Your task to perform on an android device: open the mobile data screen to see how much data has been used Image 0: 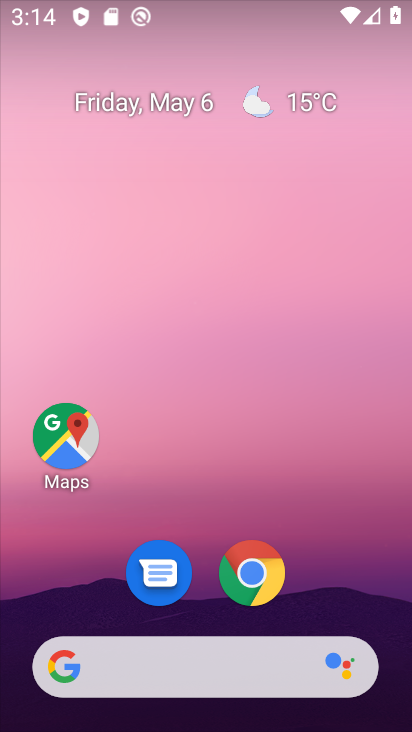
Step 0: drag from (215, 624) to (341, 38)
Your task to perform on an android device: open the mobile data screen to see how much data has been used Image 1: 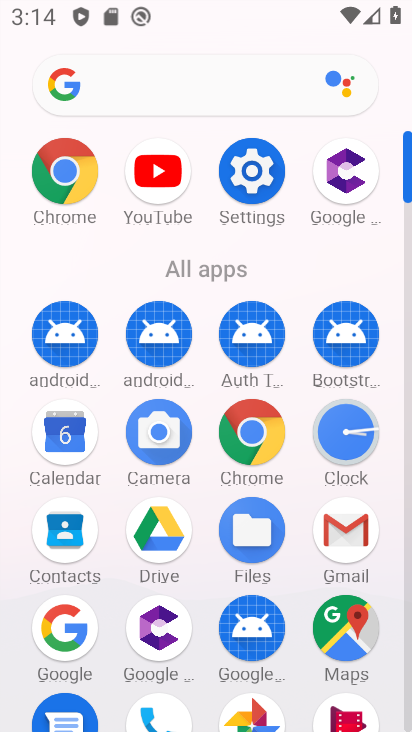
Step 1: drag from (189, 654) to (230, 188)
Your task to perform on an android device: open the mobile data screen to see how much data has been used Image 2: 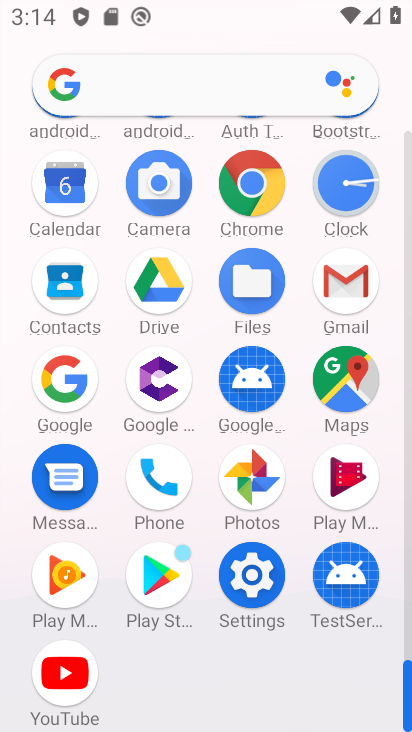
Step 2: click (261, 589)
Your task to perform on an android device: open the mobile data screen to see how much data has been used Image 3: 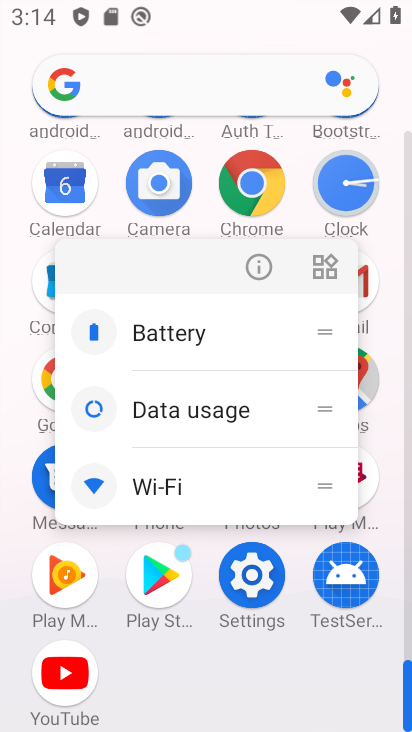
Step 3: click (259, 267)
Your task to perform on an android device: open the mobile data screen to see how much data has been used Image 4: 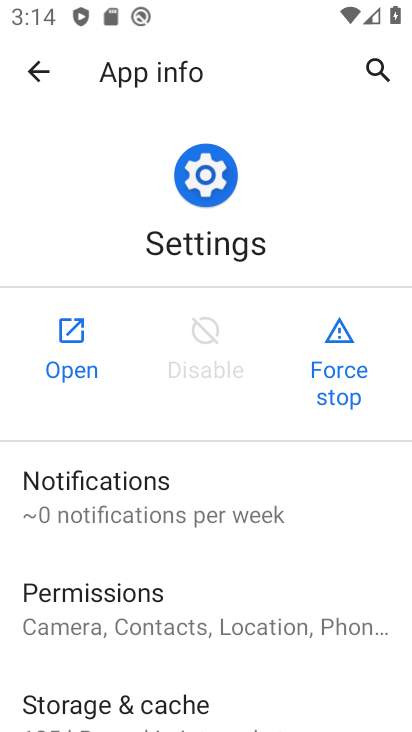
Step 4: click (75, 357)
Your task to perform on an android device: open the mobile data screen to see how much data has been used Image 5: 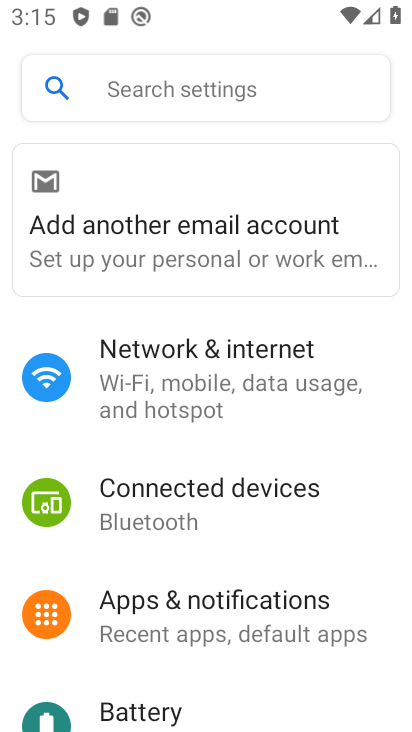
Step 5: click (193, 419)
Your task to perform on an android device: open the mobile data screen to see how much data has been used Image 6: 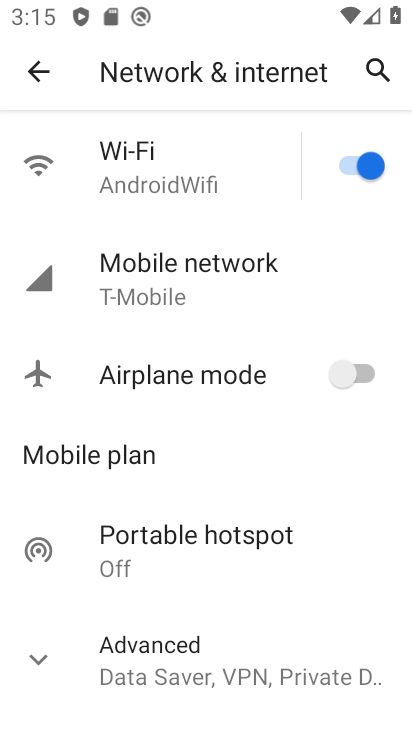
Step 6: click (189, 275)
Your task to perform on an android device: open the mobile data screen to see how much data has been used Image 7: 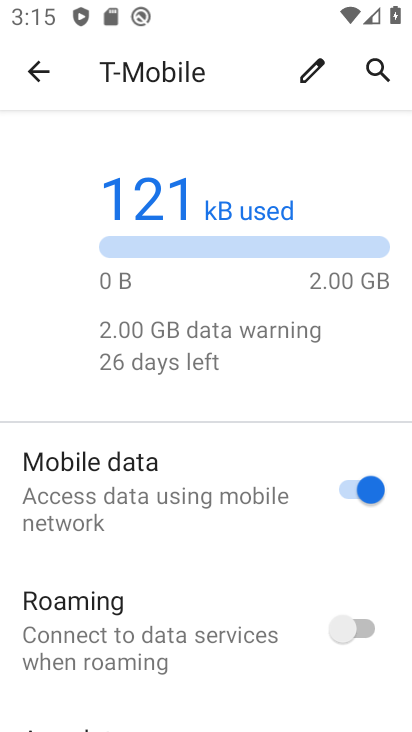
Step 7: click (284, 295)
Your task to perform on an android device: open the mobile data screen to see how much data has been used Image 8: 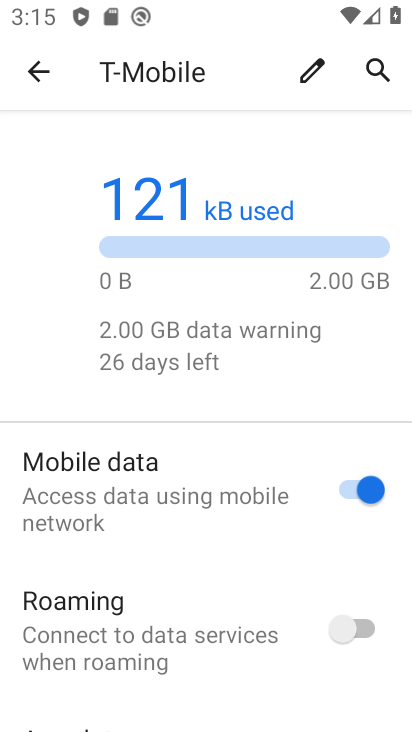
Step 8: task complete